Your task to perform on an android device: show emergency info Image 0: 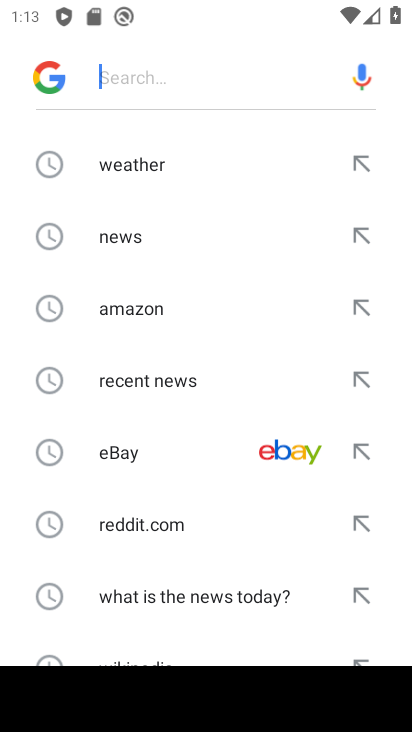
Step 0: press back button
Your task to perform on an android device: show emergency info Image 1: 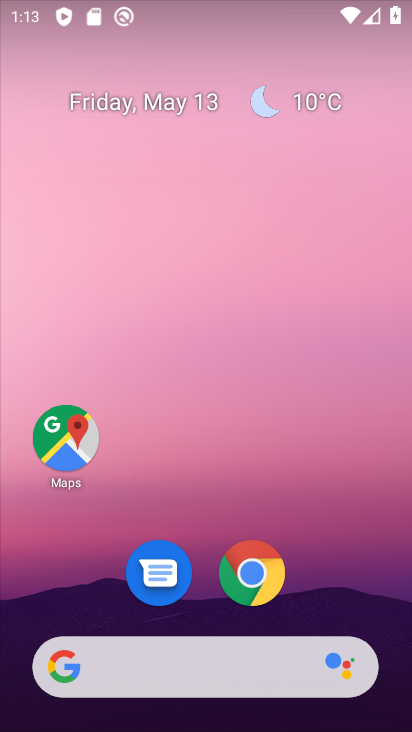
Step 1: drag from (306, 582) to (297, 55)
Your task to perform on an android device: show emergency info Image 2: 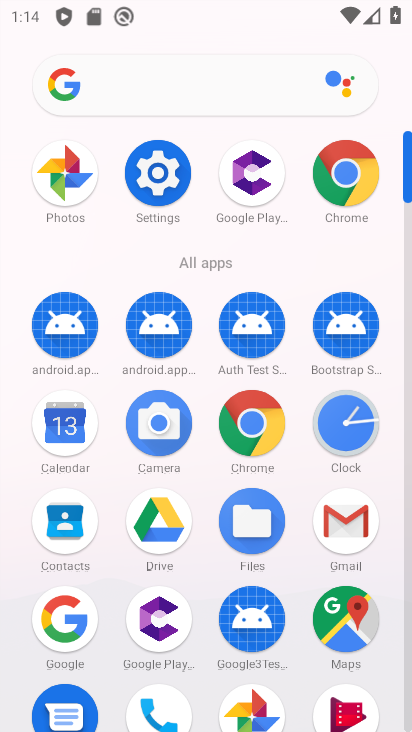
Step 2: drag from (11, 581) to (11, 237)
Your task to perform on an android device: show emergency info Image 3: 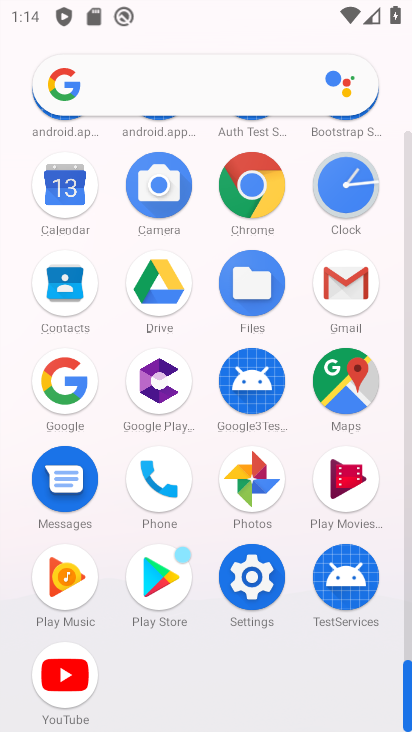
Step 3: click (243, 179)
Your task to perform on an android device: show emergency info Image 4: 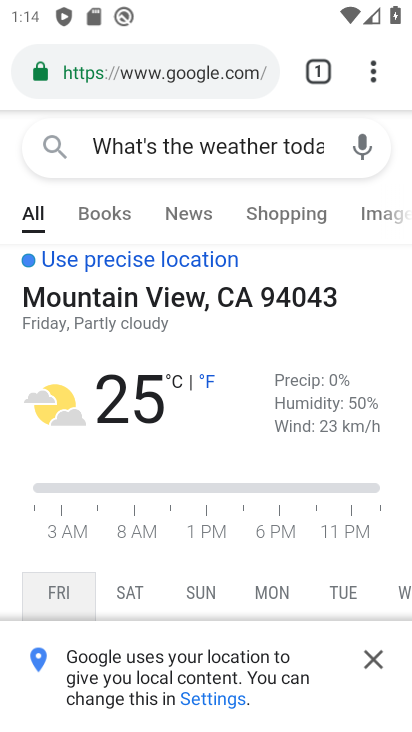
Step 4: drag from (375, 73) to (113, 553)
Your task to perform on an android device: show emergency info Image 5: 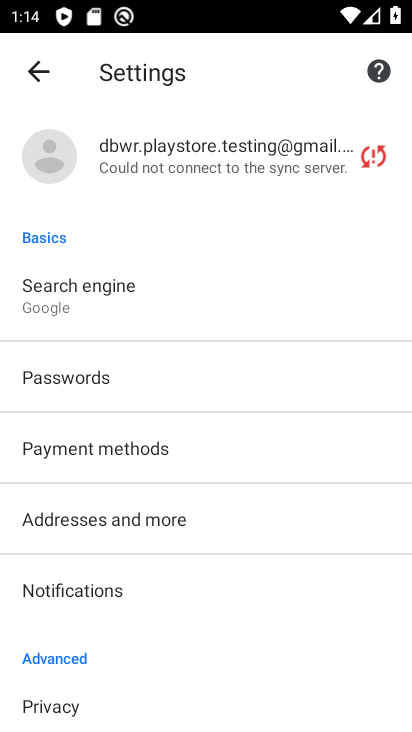
Step 5: drag from (246, 575) to (277, 190)
Your task to perform on an android device: show emergency info Image 6: 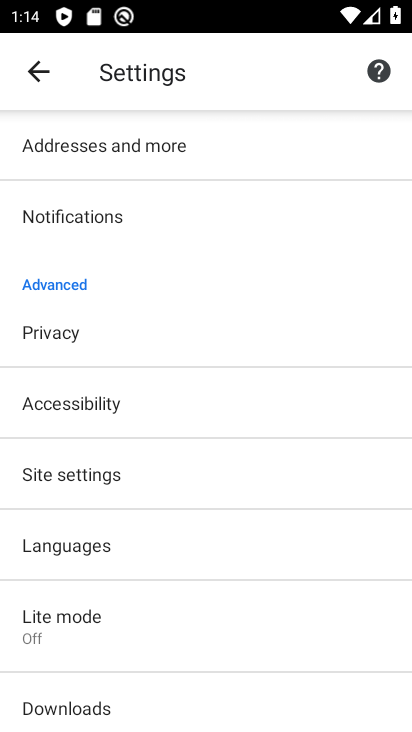
Step 6: drag from (152, 540) to (181, 189)
Your task to perform on an android device: show emergency info Image 7: 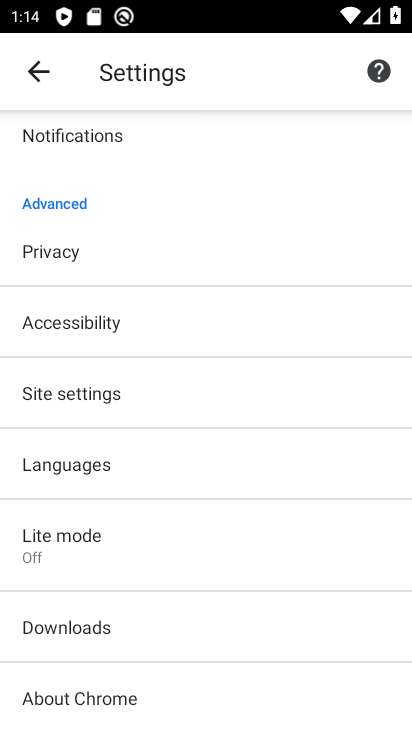
Step 7: click (112, 385)
Your task to perform on an android device: show emergency info Image 8: 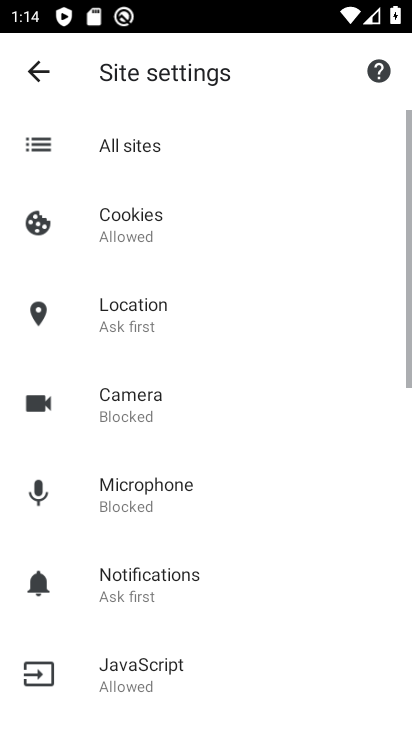
Step 8: drag from (275, 516) to (283, 95)
Your task to perform on an android device: show emergency info Image 9: 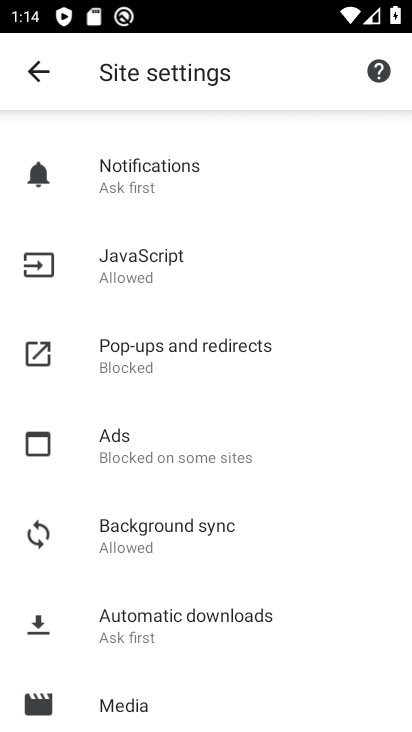
Step 9: drag from (216, 499) to (247, 174)
Your task to perform on an android device: show emergency info Image 10: 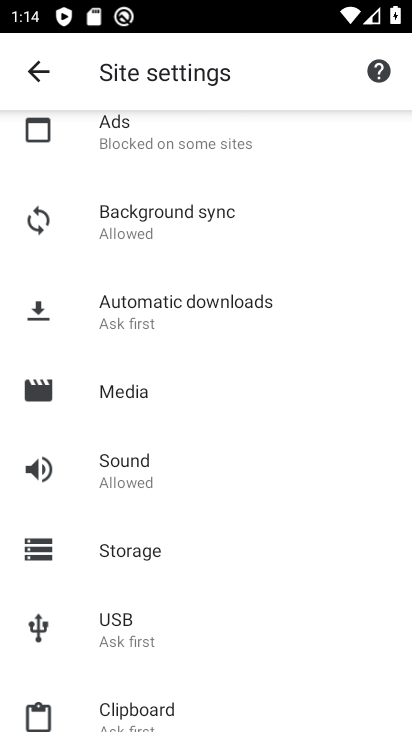
Step 10: drag from (240, 557) to (260, 190)
Your task to perform on an android device: show emergency info Image 11: 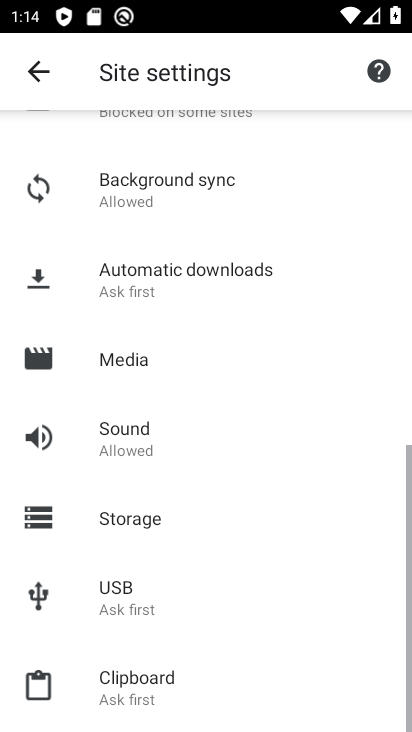
Step 11: drag from (254, 265) to (254, 625)
Your task to perform on an android device: show emergency info Image 12: 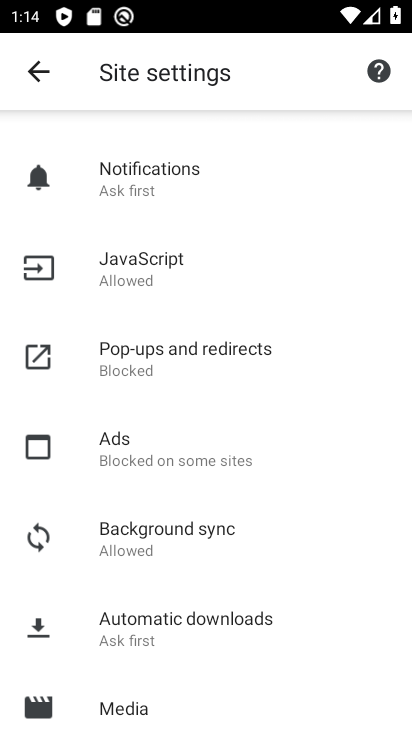
Step 12: drag from (236, 262) to (189, 606)
Your task to perform on an android device: show emergency info Image 13: 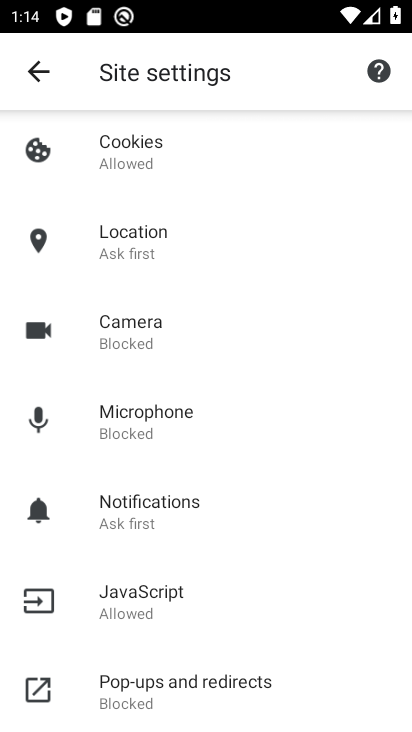
Step 13: drag from (215, 206) to (223, 580)
Your task to perform on an android device: show emergency info Image 14: 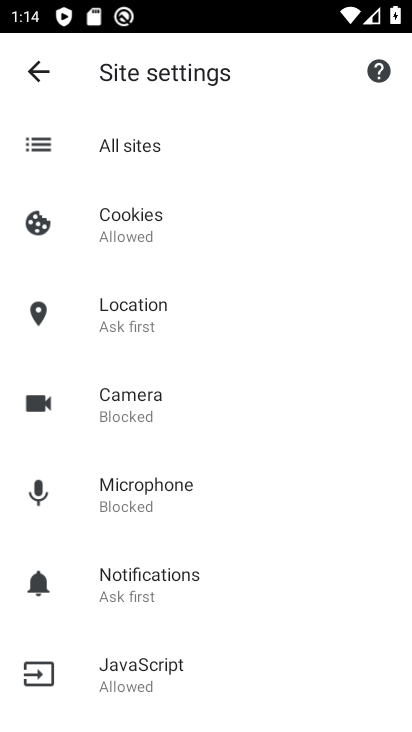
Step 14: drag from (185, 473) to (235, 158)
Your task to perform on an android device: show emergency info Image 15: 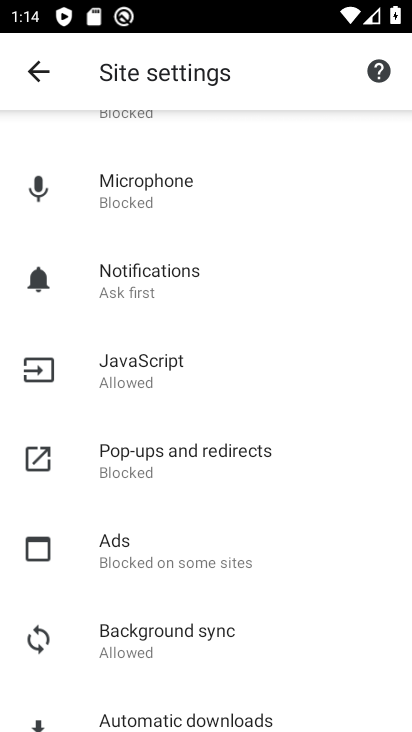
Step 15: drag from (224, 456) to (260, 209)
Your task to perform on an android device: show emergency info Image 16: 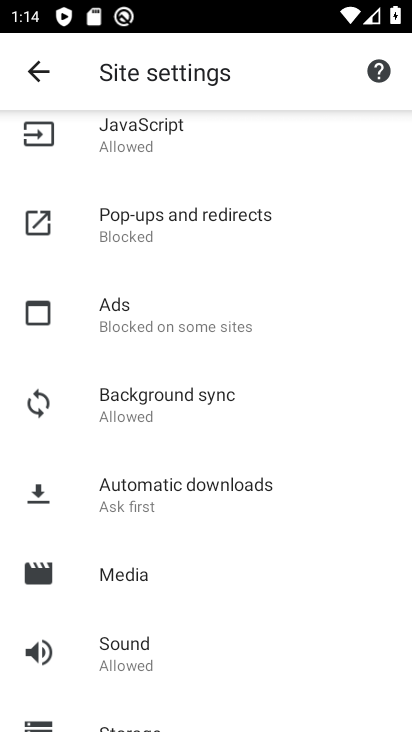
Step 16: press back button
Your task to perform on an android device: show emergency info Image 17: 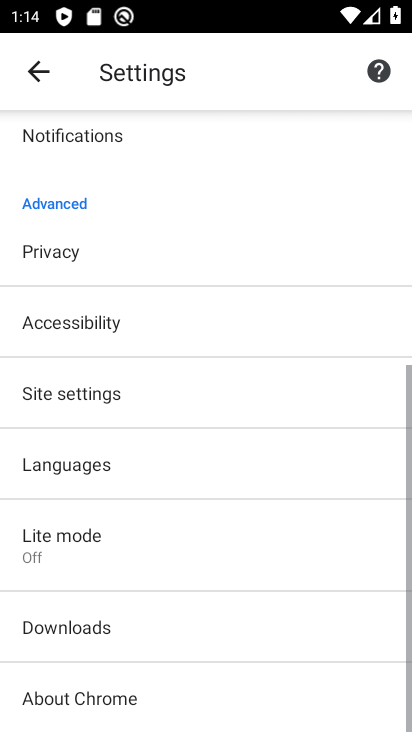
Step 17: press back button
Your task to perform on an android device: show emergency info Image 18: 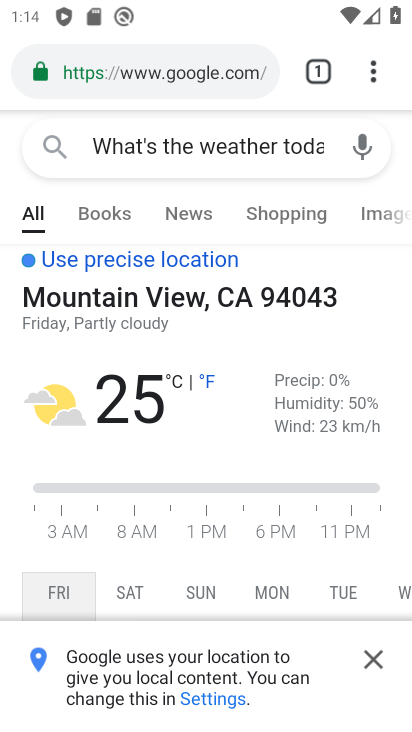
Step 18: press home button
Your task to perform on an android device: show emergency info Image 19: 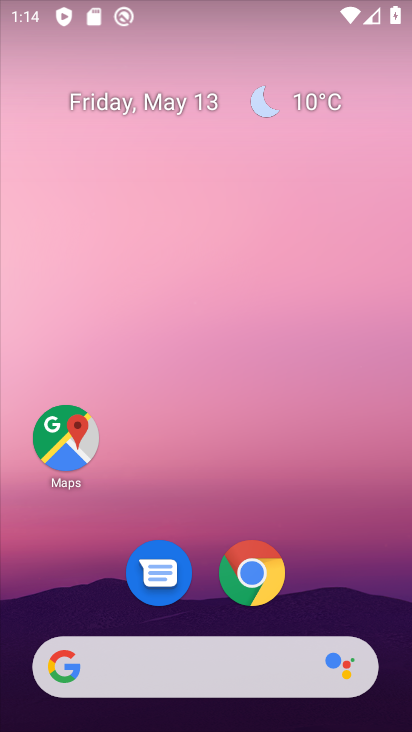
Step 19: drag from (335, 528) to (274, 16)
Your task to perform on an android device: show emergency info Image 20: 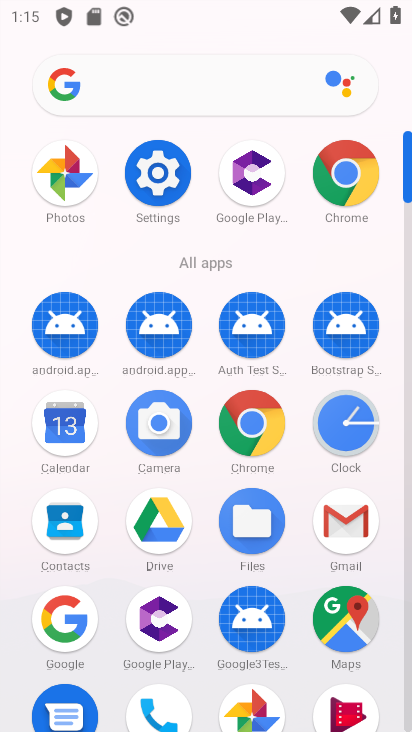
Step 20: drag from (10, 590) to (39, 181)
Your task to perform on an android device: show emergency info Image 21: 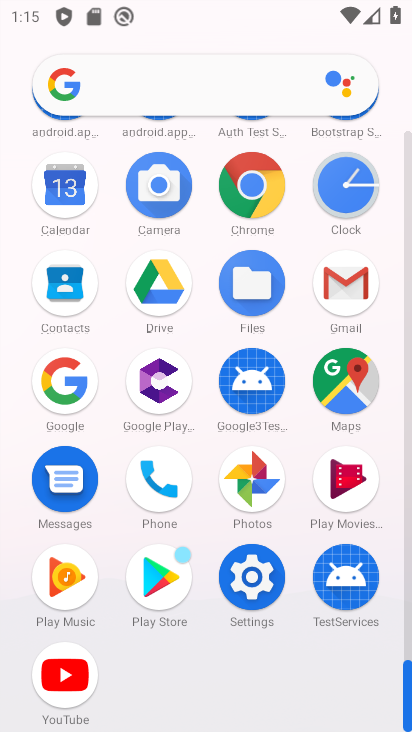
Step 21: click (252, 572)
Your task to perform on an android device: show emergency info Image 22: 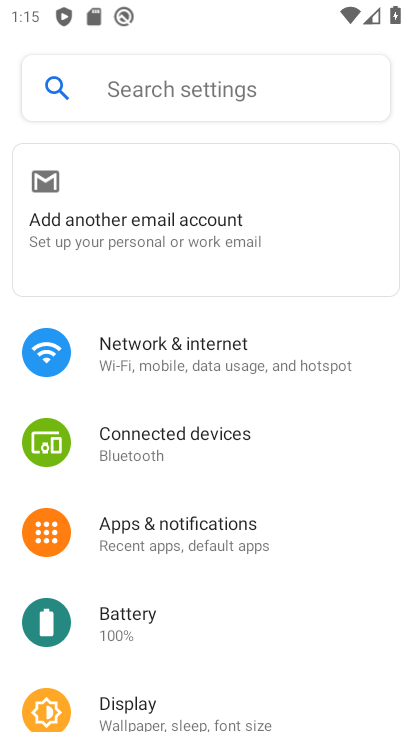
Step 22: drag from (229, 599) to (302, 189)
Your task to perform on an android device: show emergency info Image 23: 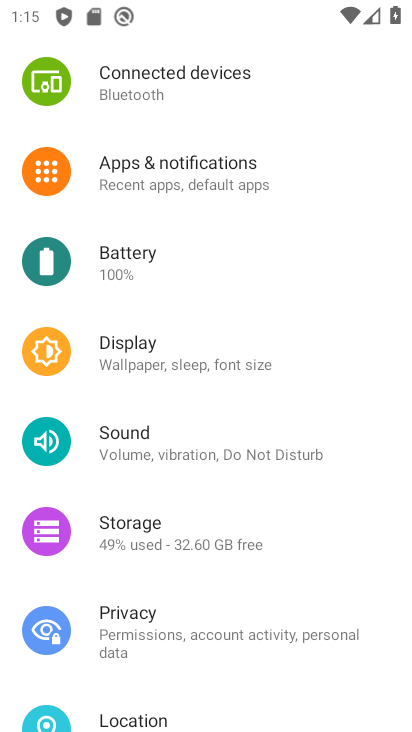
Step 23: drag from (253, 662) to (313, 207)
Your task to perform on an android device: show emergency info Image 24: 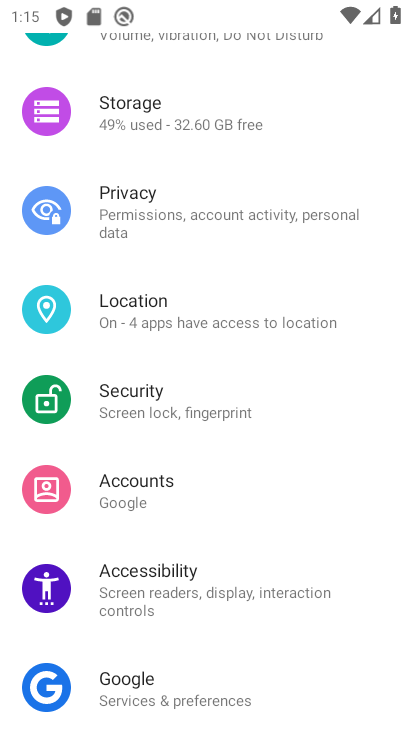
Step 24: drag from (190, 656) to (255, 235)
Your task to perform on an android device: show emergency info Image 25: 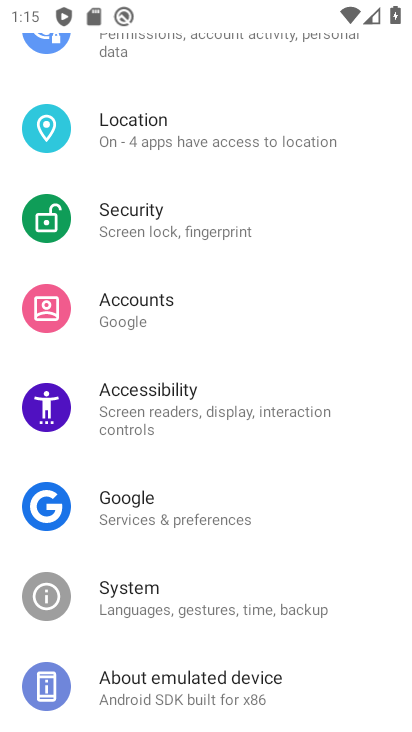
Step 25: click (189, 689)
Your task to perform on an android device: show emergency info Image 26: 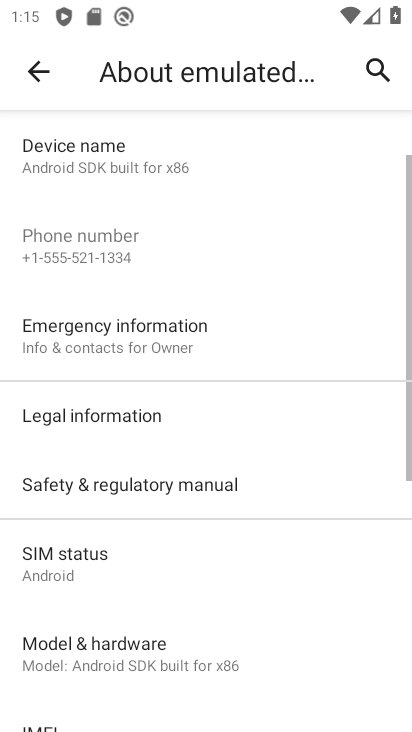
Step 26: drag from (230, 657) to (259, 192)
Your task to perform on an android device: show emergency info Image 27: 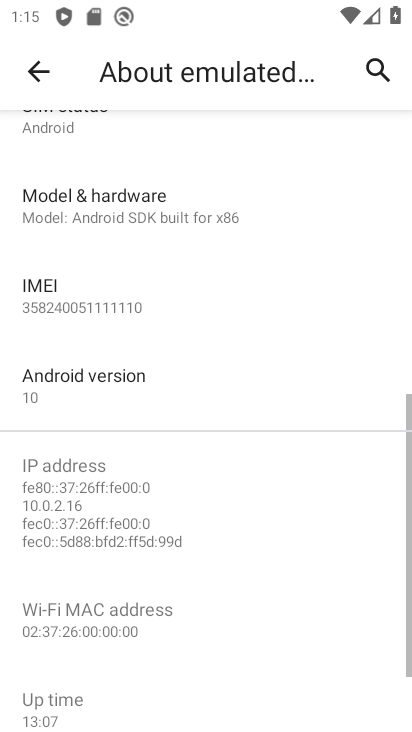
Step 27: drag from (266, 190) to (266, 616)
Your task to perform on an android device: show emergency info Image 28: 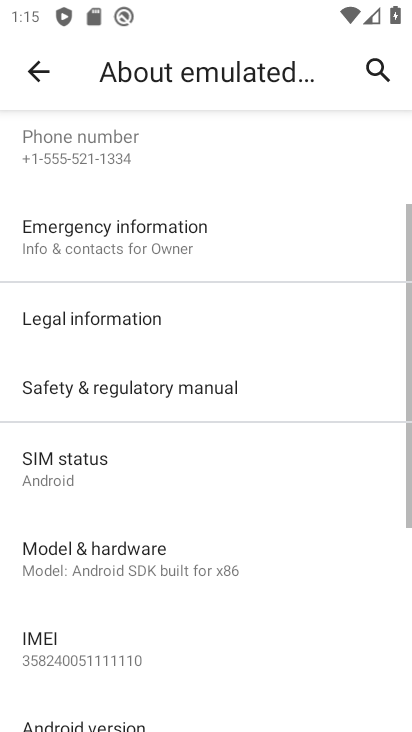
Step 28: drag from (284, 184) to (286, 579)
Your task to perform on an android device: show emergency info Image 29: 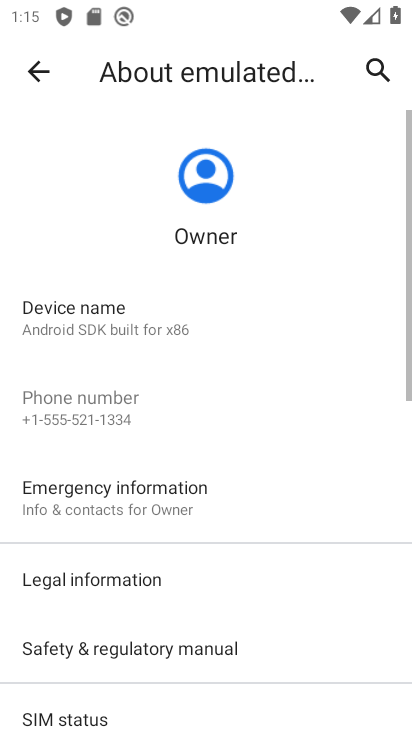
Step 29: click (147, 488)
Your task to perform on an android device: show emergency info Image 30: 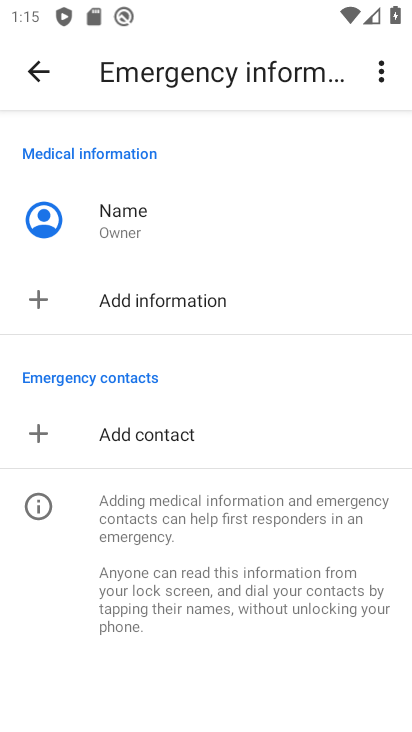
Step 30: task complete